Your task to perform on an android device: Open privacy settings Image 0: 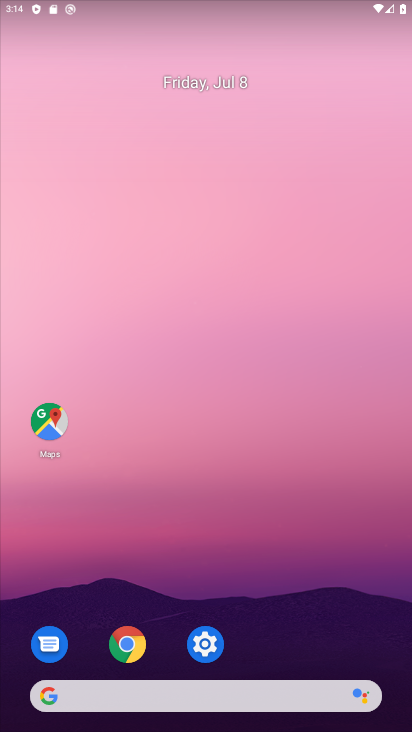
Step 0: click (197, 649)
Your task to perform on an android device: Open privacy settings Image 1: 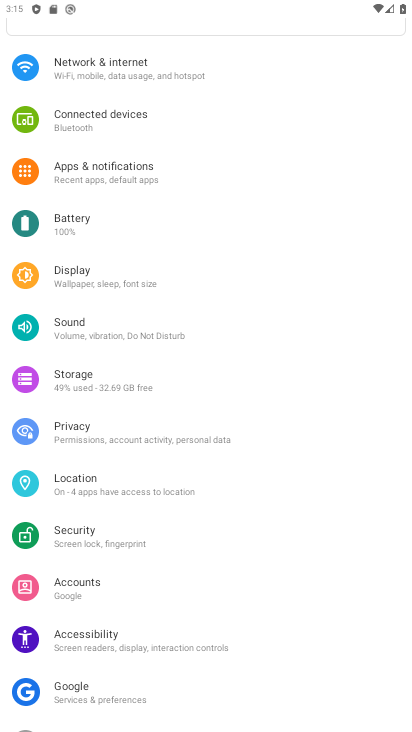
Step 1: click (85, 431)
Your task to perform on an android device: Open privacy settings Image 2: 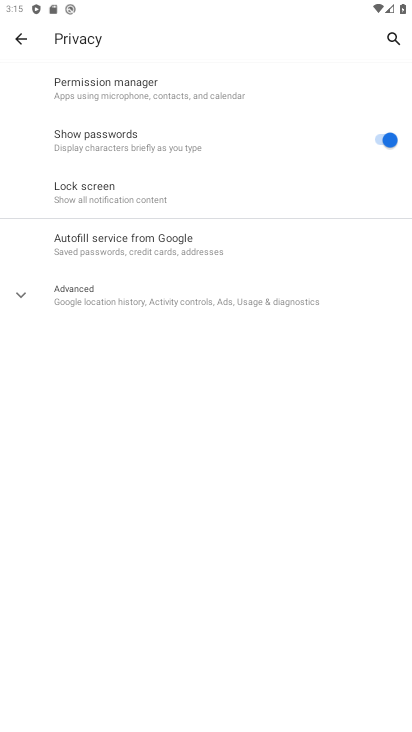
Step 2: task complete